Your task to perform on an android device: open app "Messenger Lite" (install if not already installed) and go to login screen Image 0: 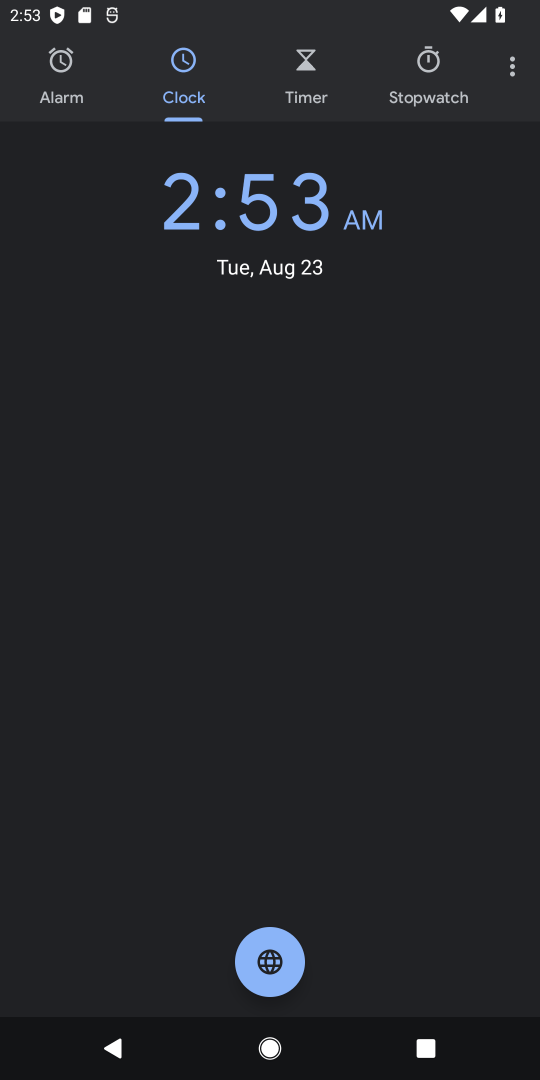
Step 0: press home button
Your task to perform on an android device: open app "Messenger Lite" (install if not already installed) and go to login screen Image 1: 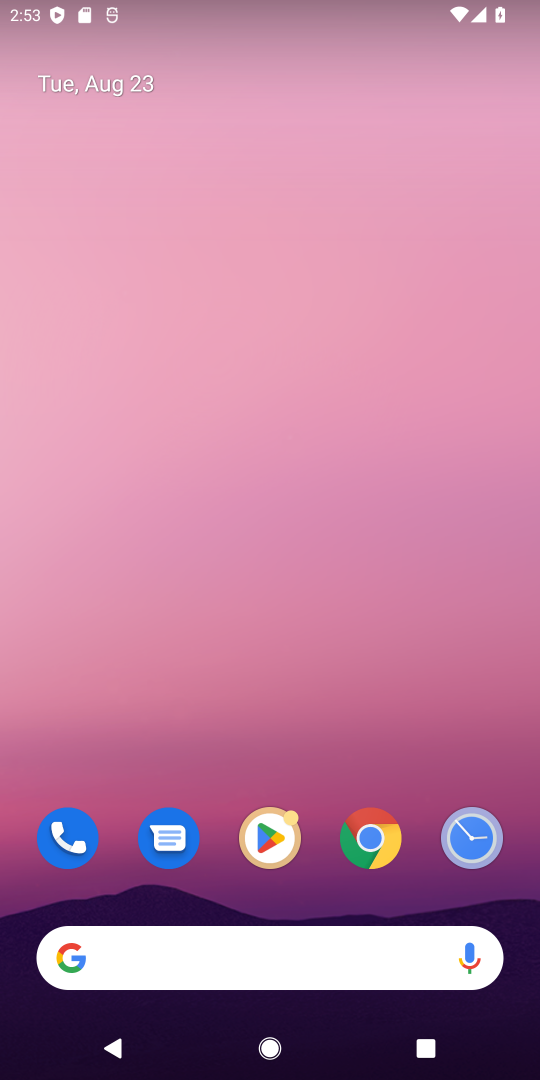
Step 1: drag from (301, 917) to (539, 659)
Your task to perform on an android device: open app "Messenger Lite" (install if not already installed) and go to login screen Image 2: 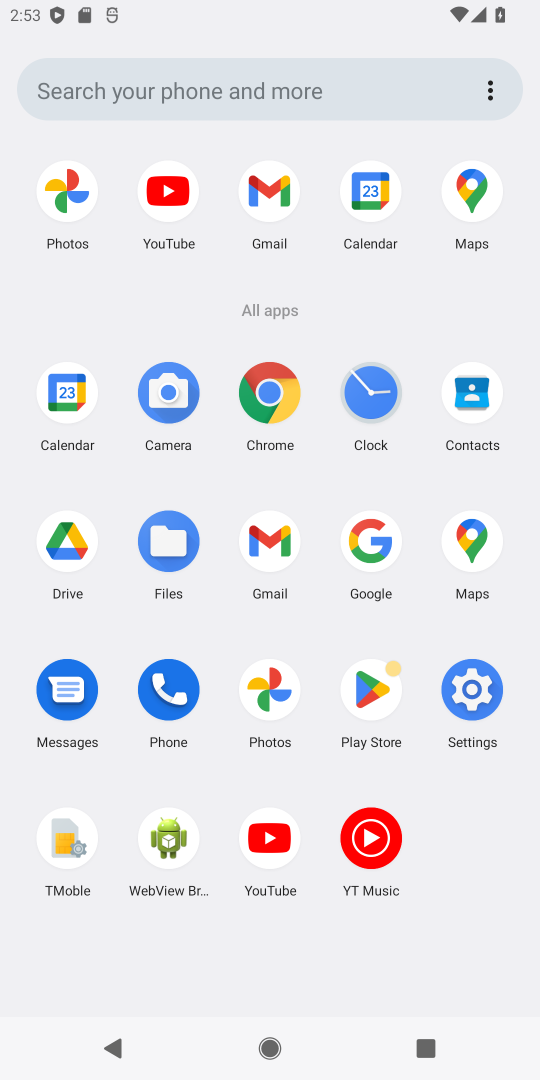
Step 2: click (372, 691)
Your task to perform on an android device: open app "Messenger Lite" (install if not already installed) and go to login screen Image 3: 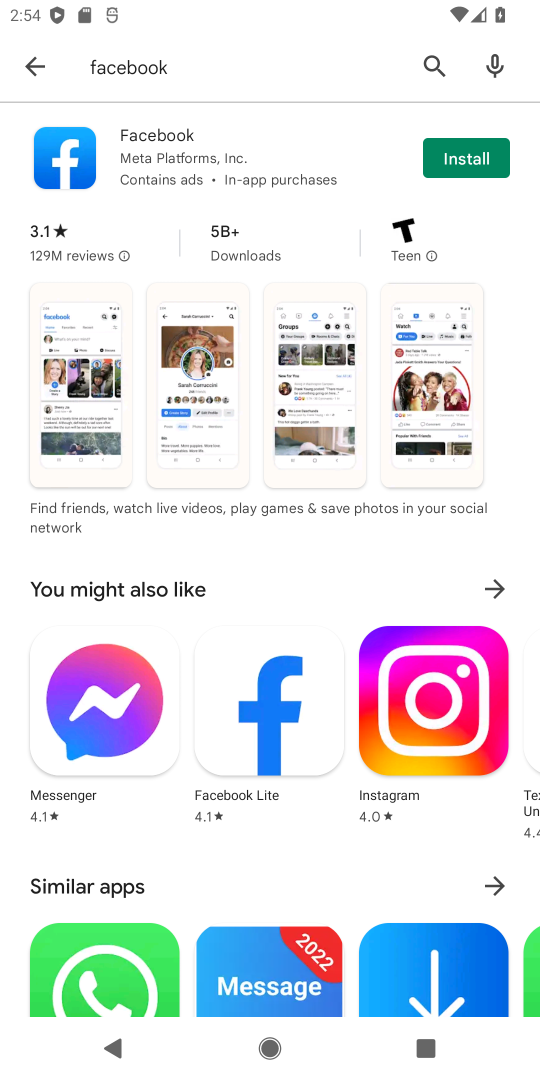
Step 3: click (18, 69)
Your task to perform on an android device: open app "Messenger Lite" (install if not already installed) and go to login screen Image 4: 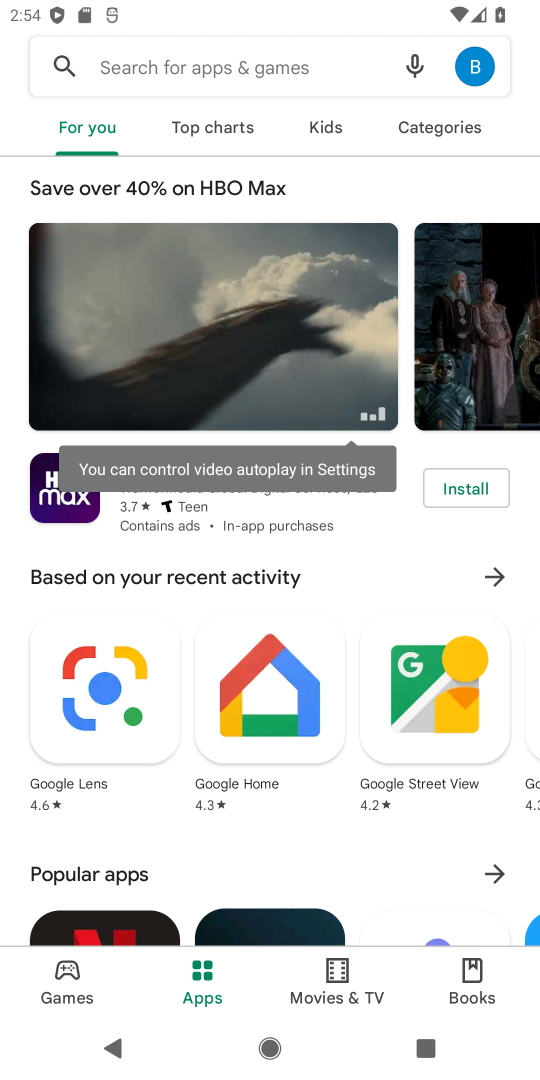
Step 4: click (109, 61)
Your task to perform on an android device: open app "Messenger Lite" (install if not already installed) and go to login screen Image 5: 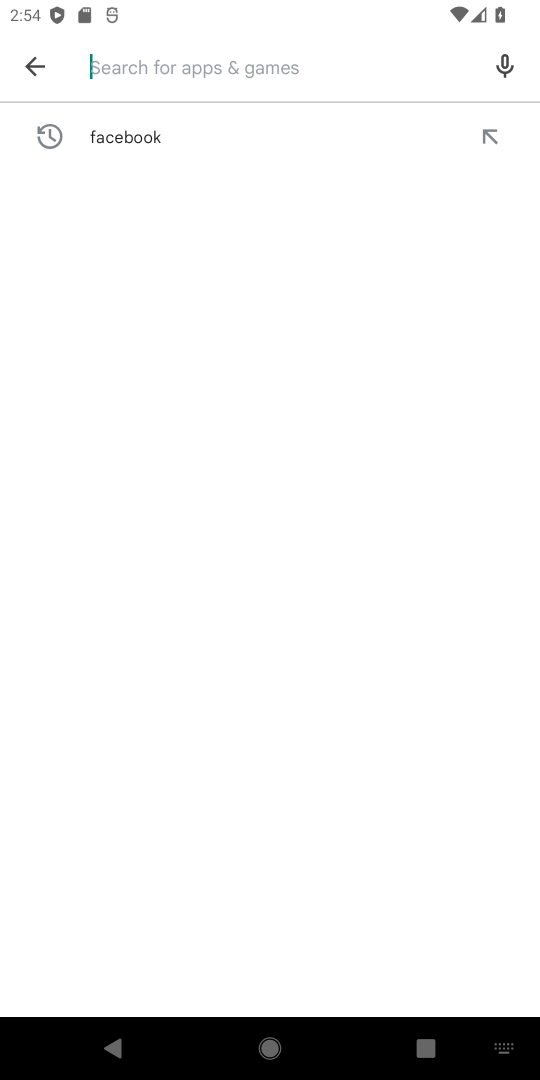
Step 5: type "Messenger Lite"
Your task to perform on an android device: open app "Messenger Lite" (install if not already installed) and go to login screen Image 6: 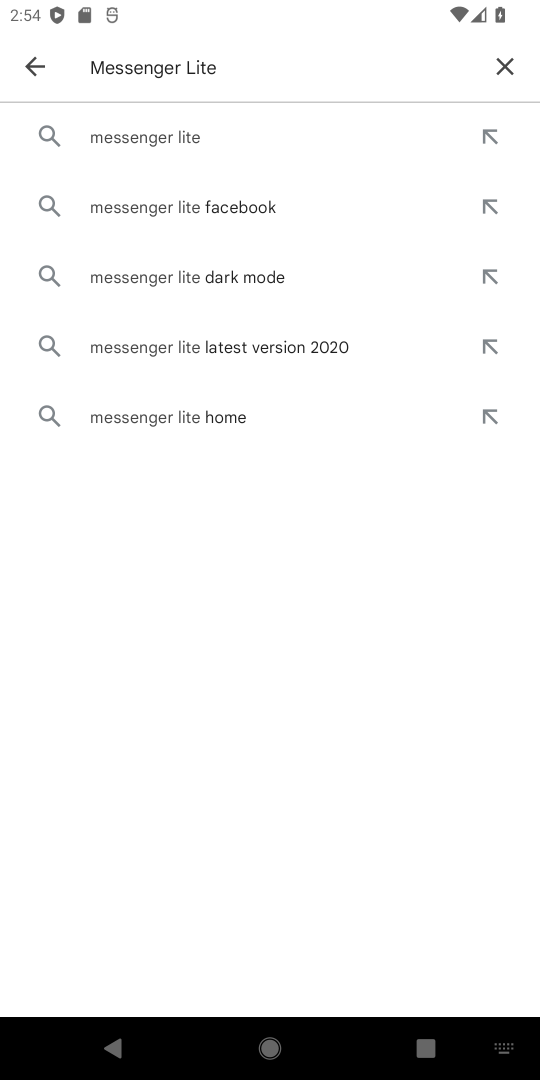
Step 6: click (101, 140)
Your task to perform on an android device: open app "Messenger Lite" (install if not already installed) and go to login screen Image 7: 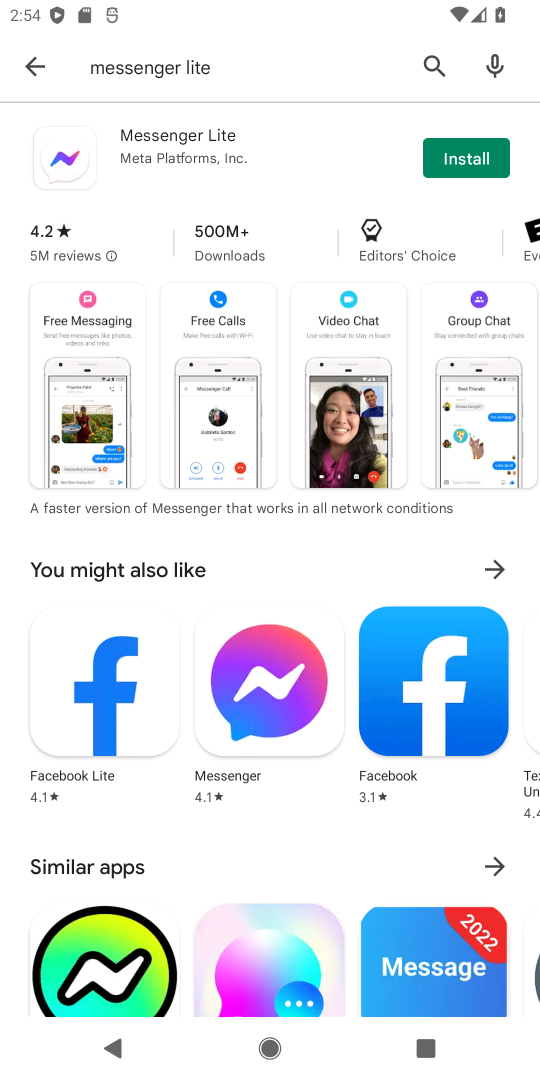
Step 7: click (446, 164)
Your task to perform on an android device: open app "Messenger Lite" (install if not already installed) and go to login screen Image 8: 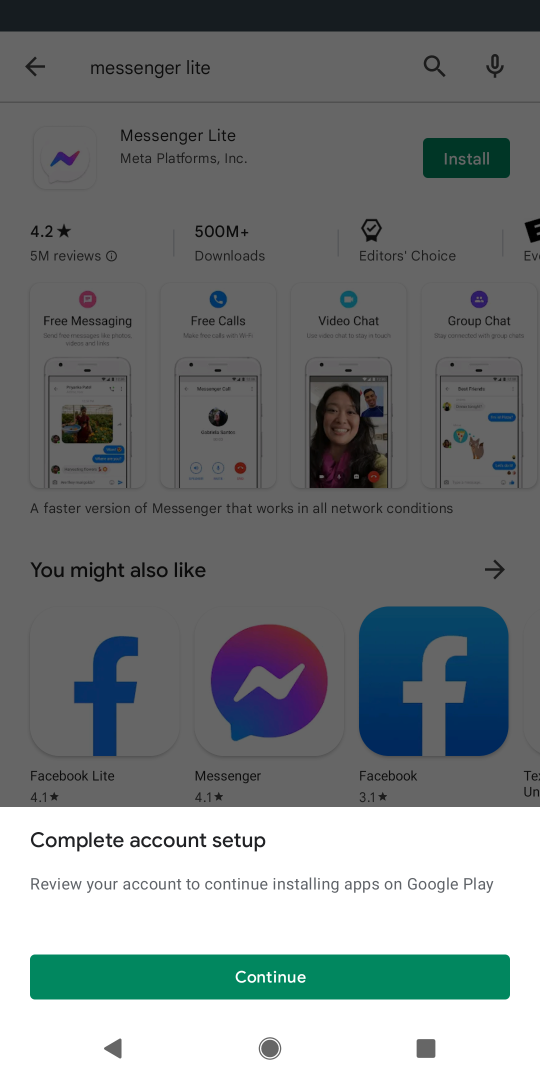
Step 8: click (290, 961)
Your task to perform on an android device: open app "Messenger Lite" (install if not already installed) and go to login screen Image 9: 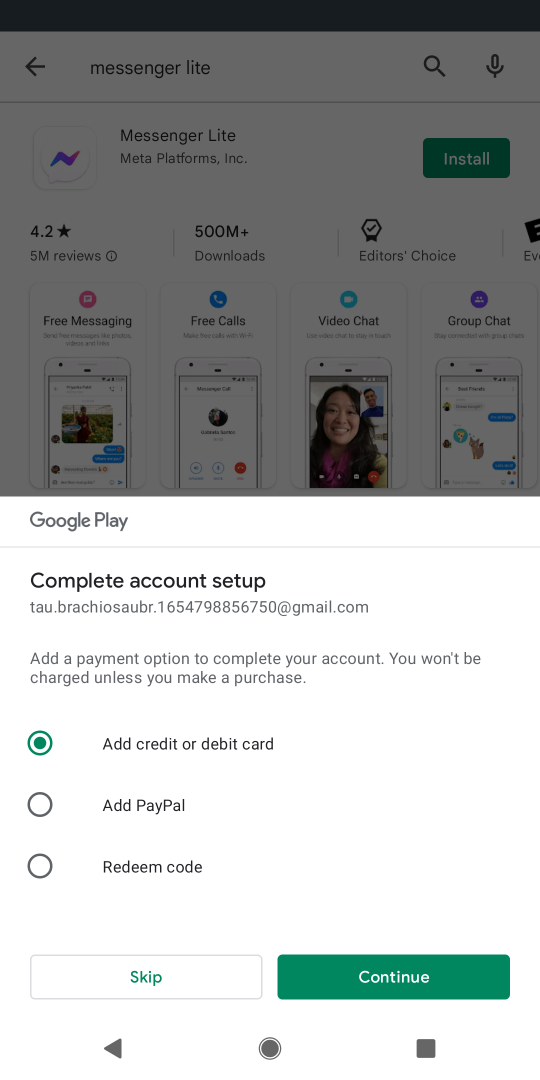
Step 9: click (91, 981)
Your task to perform on an android device: open app "Messenger Lite" (install if not already installed) and go to login screen Image 10: 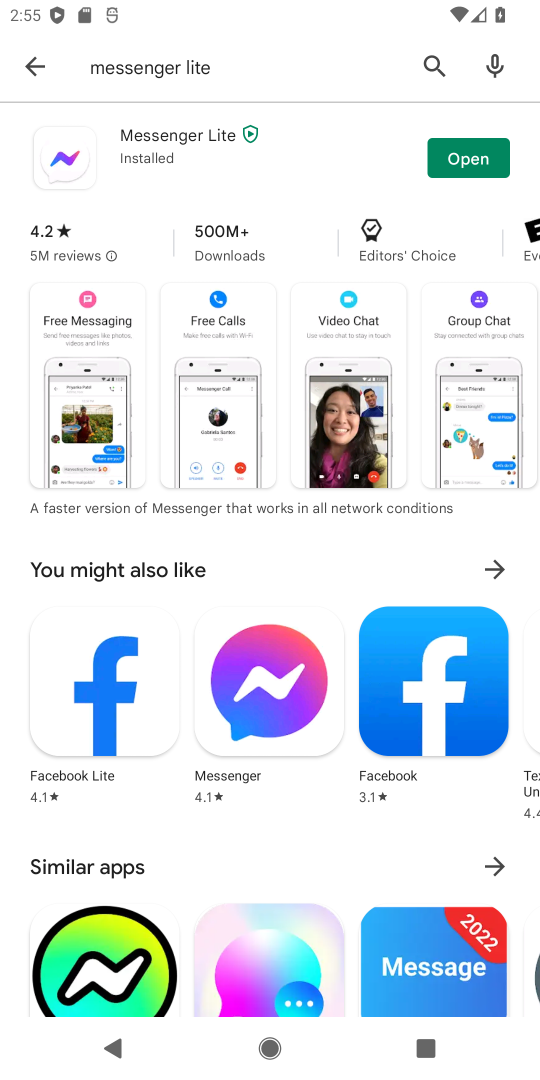
Step 10: click (475, 153)
Your task to perform on an android device: open app "Messenger Lite" (install if not already installed) and go to login screen Image 11: 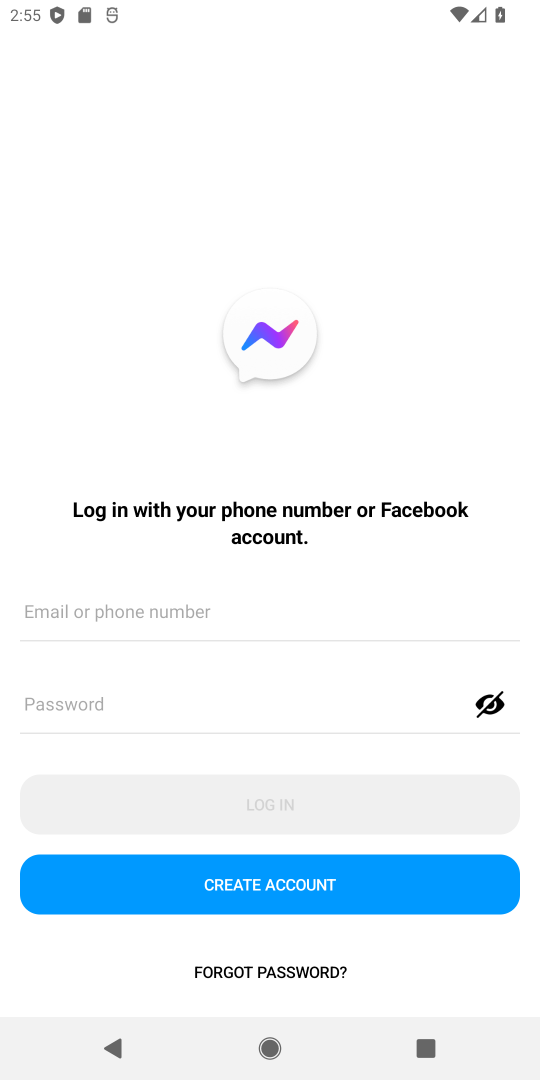
Step 11: task complete